Your task to perform on an android device: turn smart compose on in the gmail app Image 0: 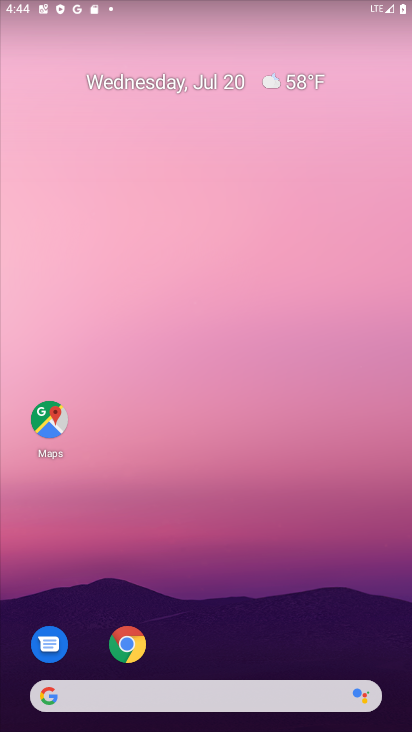
Step 0: press home button
Your task to perform on an android device: turn smart compose on in the gmail app Image 1: 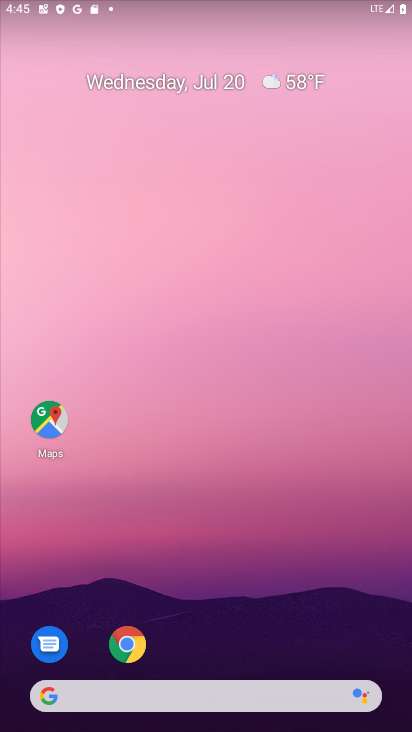
Step 1: drag from (239, 647) to (237, 65)
Your task to perform on an android device: turn smart compose on in the gmail app Image 2: 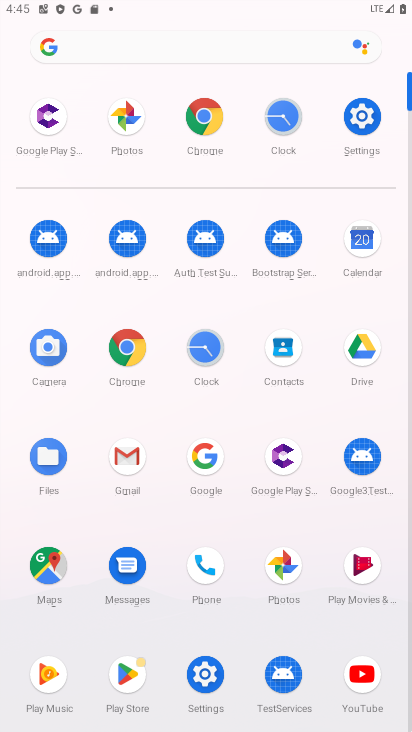
Step 2: click (130, 462)
Your task to perform on an android device: turn smart compose on in the gmail app Image 3: 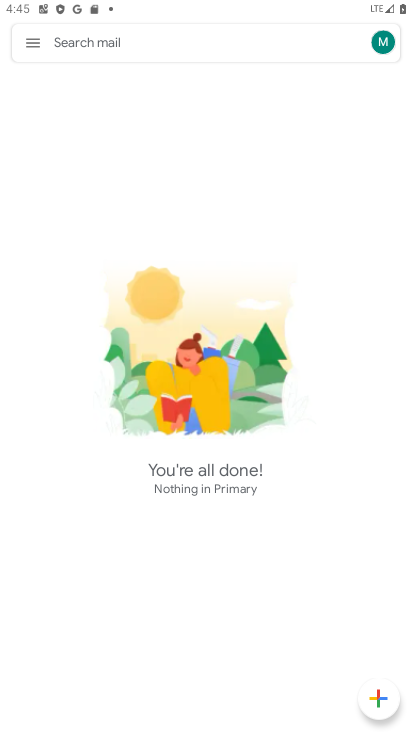
Step 3: click (43, 46)
Your task to perform on an android device: turn smart compose on in the gmail app Image 4: 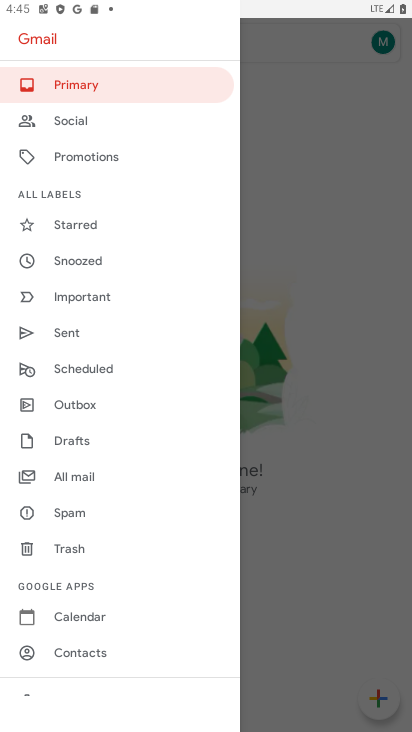
Step 4: drag from (157, 578) to (296, 488)
Your task to perform on an android device: turn smart compose on in the gmail app Image 5: 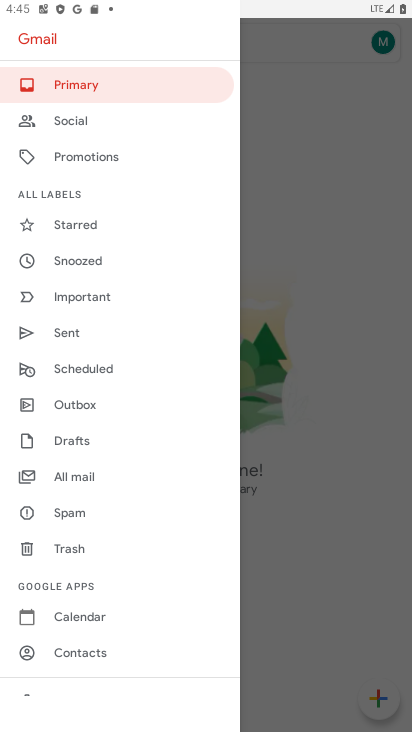
Step 5: drag from (164, 592) to (203, 27)
Your task to perform on an android device: turn smart compose on in the gmail app Image 6: 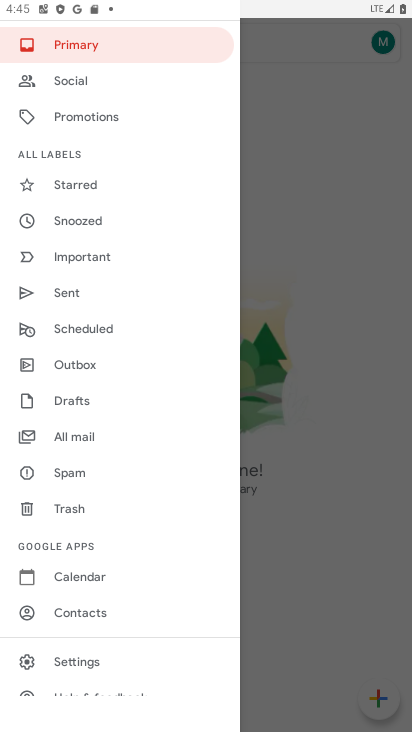
Step 6: click (69, 667)
Your task to perform on an android device: turn smart compose on in the gmail app Image 7: 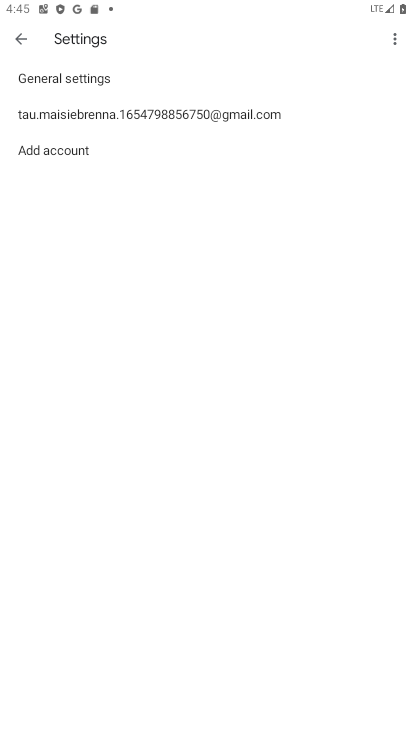
Step 7: click (101, 119)
Your task to perform on an android device: turn smart compose on in the gmail app Image 8: 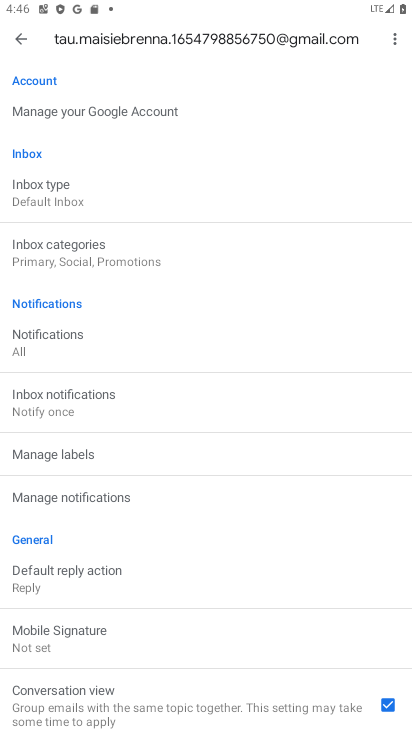
Step 8: task complete